Your task to perform on an android device: toggle wifi Image 0: 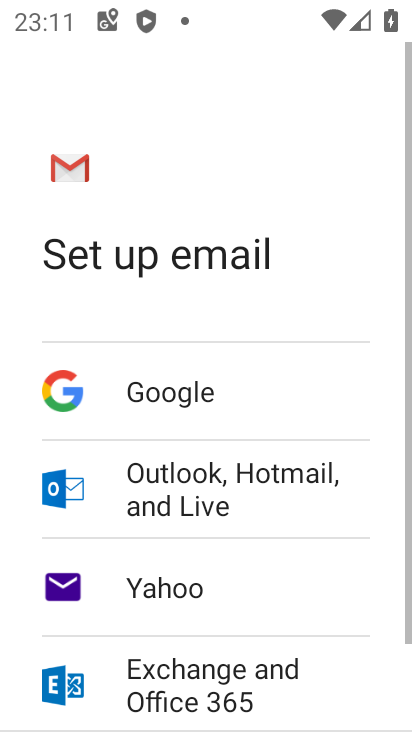
Step 0: press home button
Your task to perform on an android device: toggle wifi Image 1: 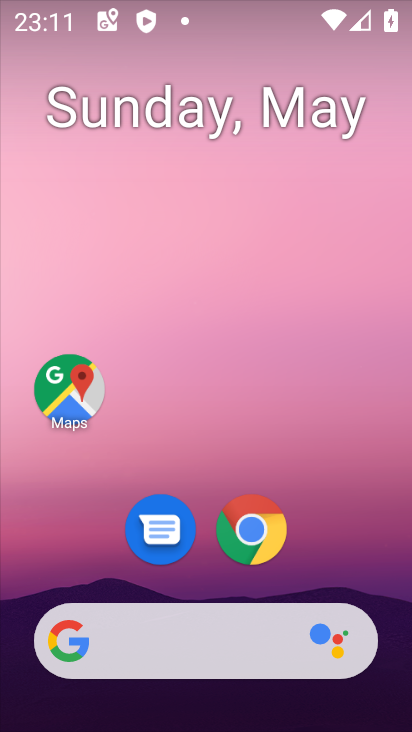
Step 1: drag from (377, 582) to (267, 3)
Your task to perform on an android device: toggle wifi Image 2: 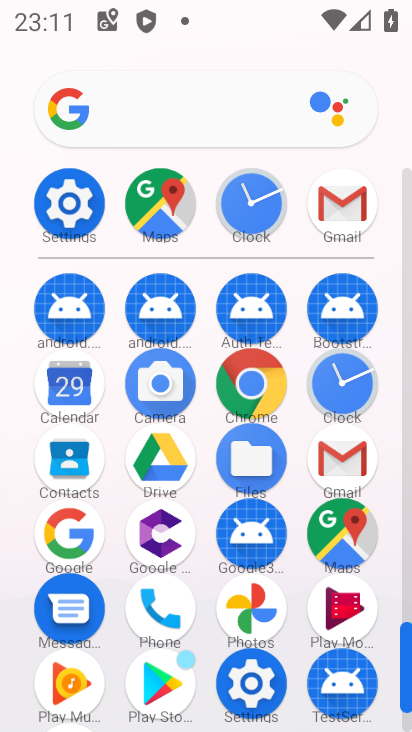
Step 2: click (67, 183)
Your task to perform on an android device: toggle wifi Image 3: 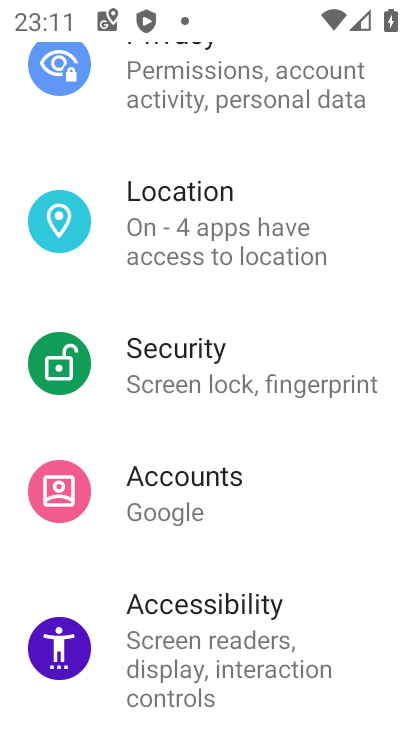
Step 3: drag from (321, 161) to (397, 481)
Your task to perform on an android device: toggle wifi Image 4: 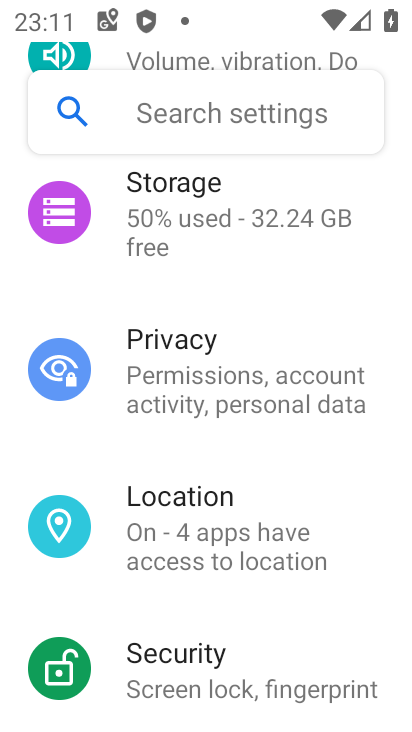
Step 4: drag from (293, 229) to (343, 434)
Your task to perform on an android device: toggle wifi Image 5: 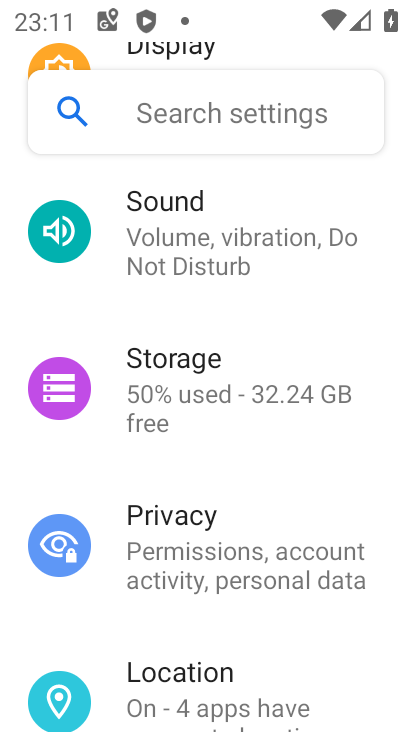
Step 5: drag from (249, 206) to (256, 719)
Your task to perform on an android device: toggle wifi Image 6: 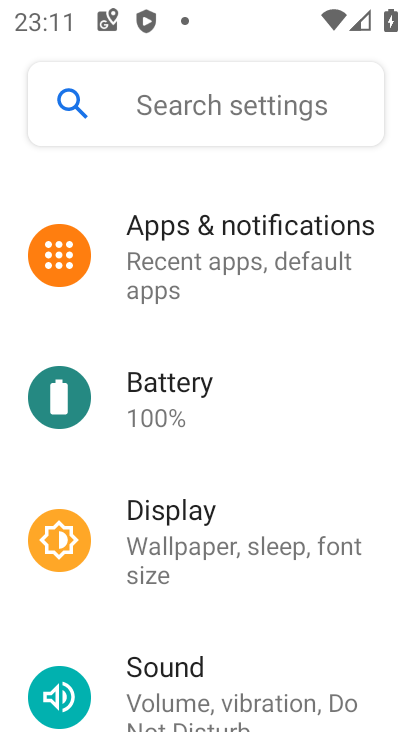
Step 6: drag from (237, 306) to (354, 705)
Your task to perform on an android device: toggle wifi Image 7: 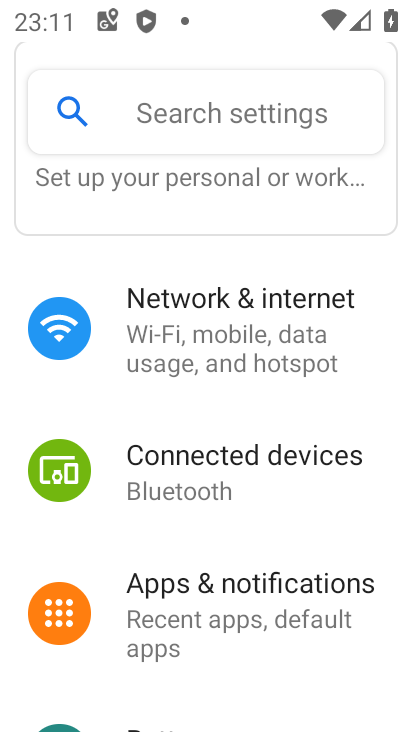
Step 7: click (237, 319)
Your task to perform on an android device: toggle wifi Image 8: 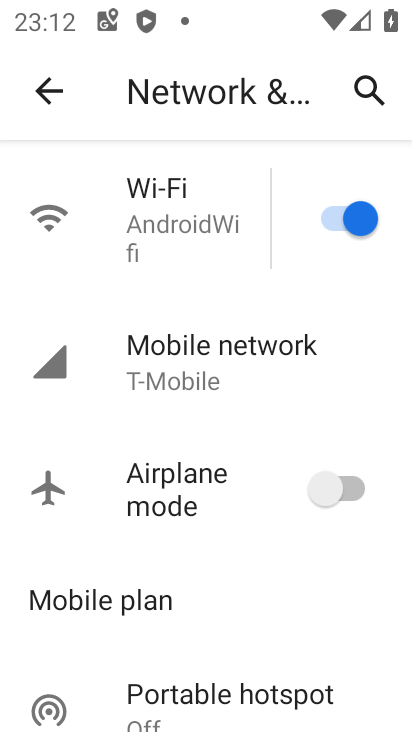
Step 8: task complete